Your task to perform on an android device: move an email to a new category in the gmail app Image 0: 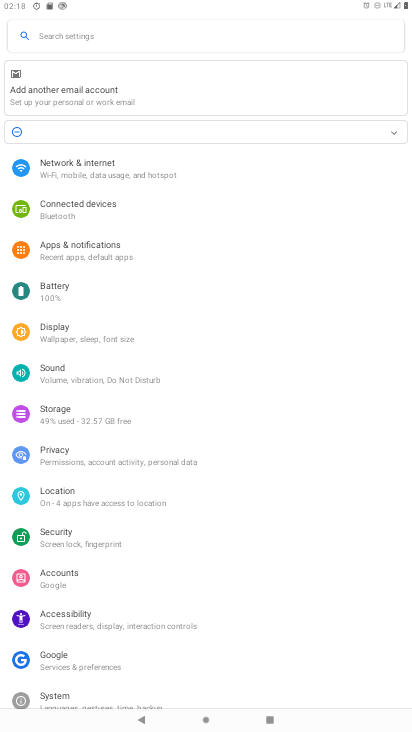
Step 0: press home button
Your task to perform on an android device: move an email to a new category in the gmail app Image 1: 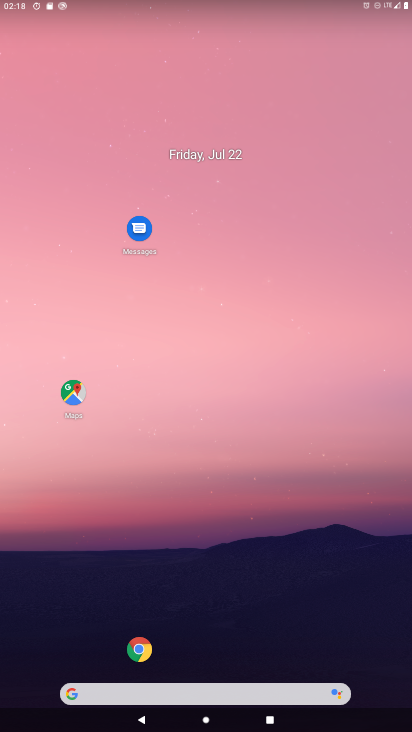
Step 1: drag from (38, 688) to (226, 9)
Your task to perform on an android device: move an email to a new category in the gmail app Image 2: 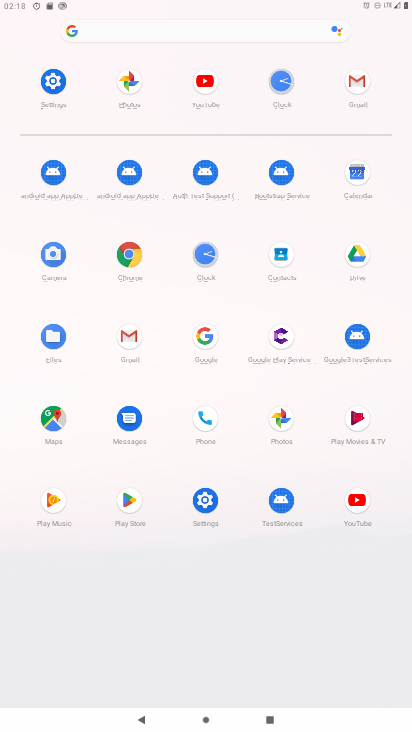
Step 2: click (121, 345)
Your task to perform on an android device: move an email to a new category in the gmail app Image 3: 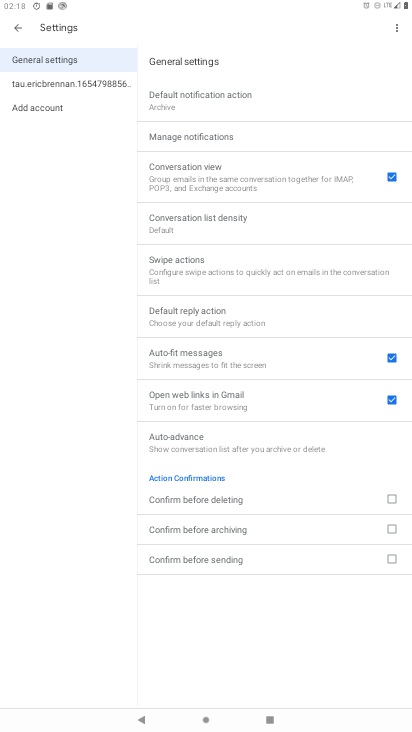
Step 3: click (18, 24)
Your task to perform on an android device: move an email to a new category in the gmail app Image 4: 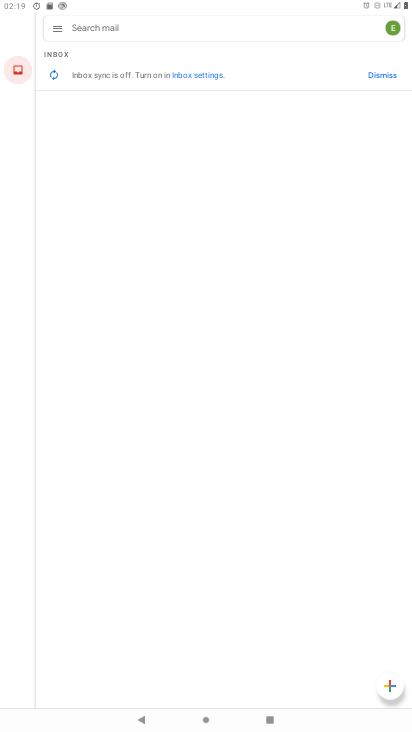
Step 4: click (55, 30)
Your task to perform on an android device: move an email to a new category in the gmail app Image 5: 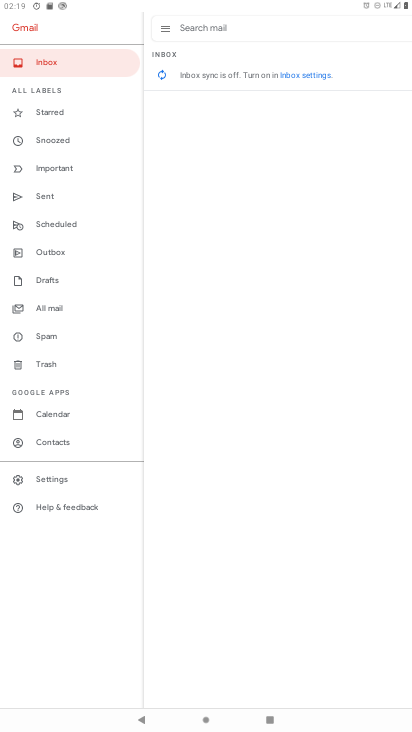
Step 5: click (49, 51)
Your task to perform on an android device: move an email to a new category in the gmail app Image 6: 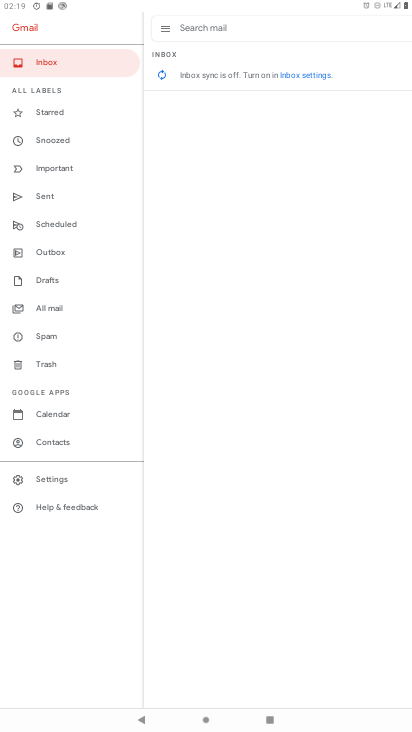
Step 6: task complete